Your task to perform on an android device: choose inbox layout in the gmail app Image 0: 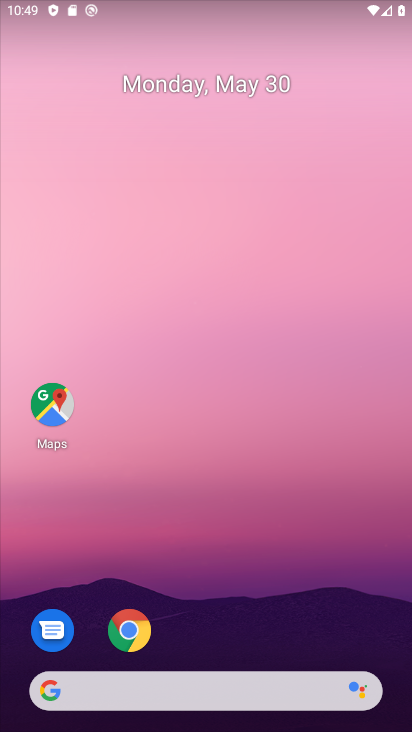
Step 0: drag from (174, 529) to (390, 308)
Your task to perform on an android device: choose inbox layout in the gmail app Image 1: 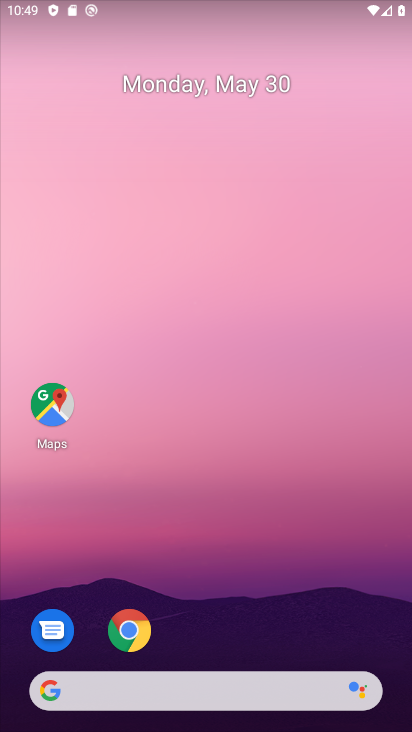
Step 1: drag from (188, 631) to (235, 222)
Your task to perform on an android device: choose inbox layout in the gmail app Image 2: 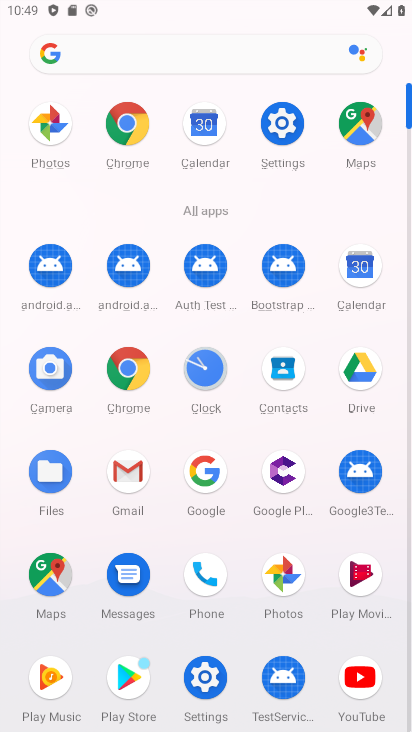
Step 2: click (122, 481)
Your task to perform on an android device: choose inbox layout in the gmail app Image 3: 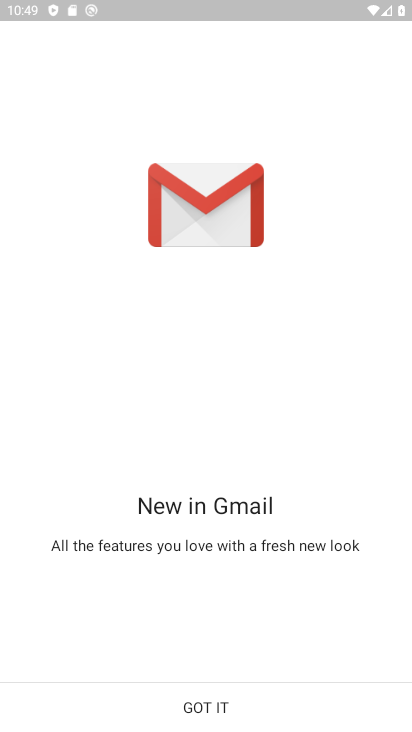
Step 3: click (215, 709)
Your task to perform on an android device: choose inbox layout in the gmail app Image 4: 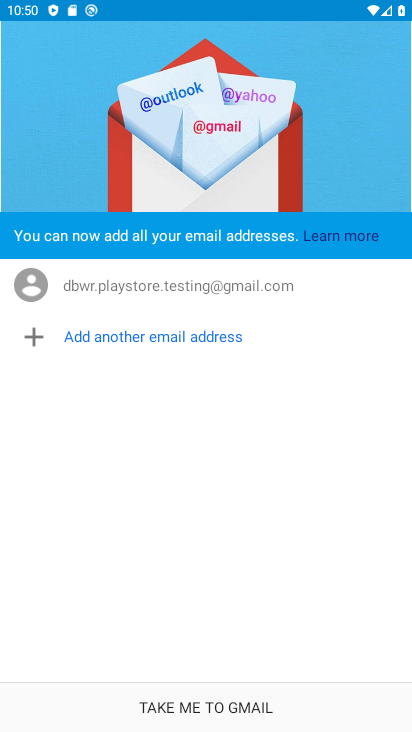
Step 4: click (181, 714)
Your task to perform on an android device: choose inbox layout in the gmail app Image 5: 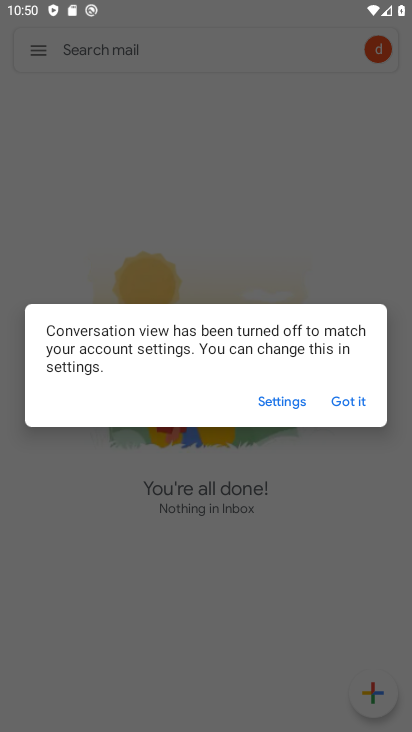
Step 5: click (357, 412)
Your task to perform on an android device: choose inbox layout in the gmail app Image 6: 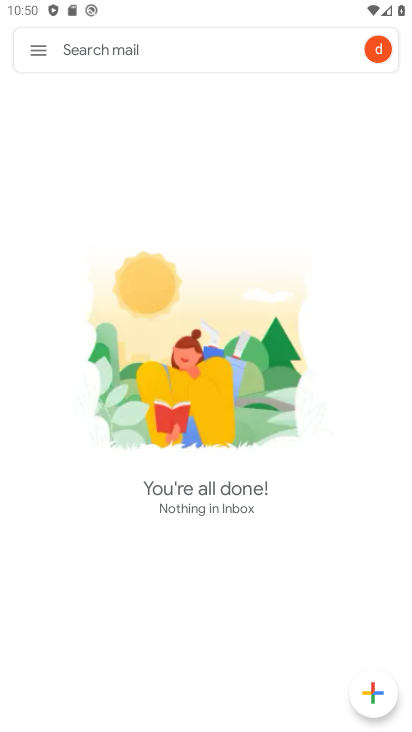
Step 6: click (36, 44)
Your task to perform on an android device: choose inbox layout in the gmail app Image 7: 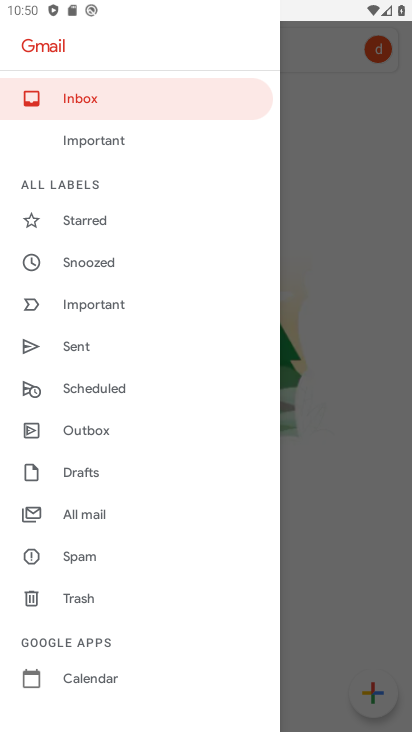
Step 7: drag from (108, 585) to (135, 294)
Your task to perform on an android device: choose inbox layout in the gmail app Image 8: 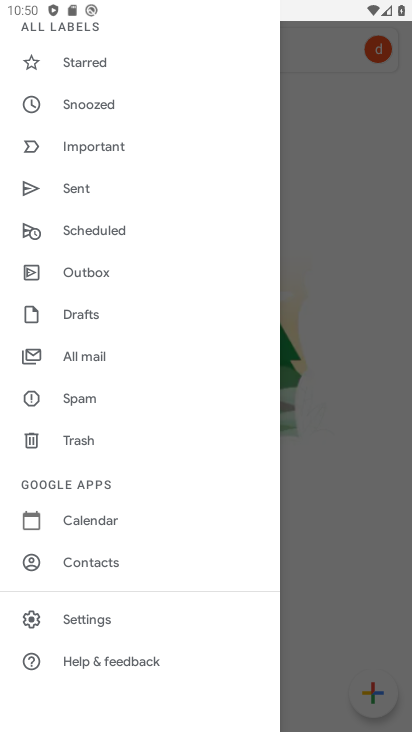
Step 8: click (74, 621)
Your task to perform on an android device: choose inbox layout in the gmail app Image 9: 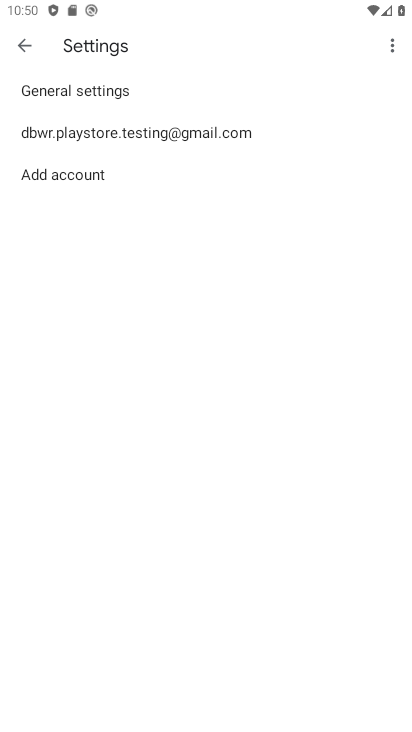
Step 9: click (185, 145)
Your task to perform on an android device: choose inbox layout in the gmail app Image 10: 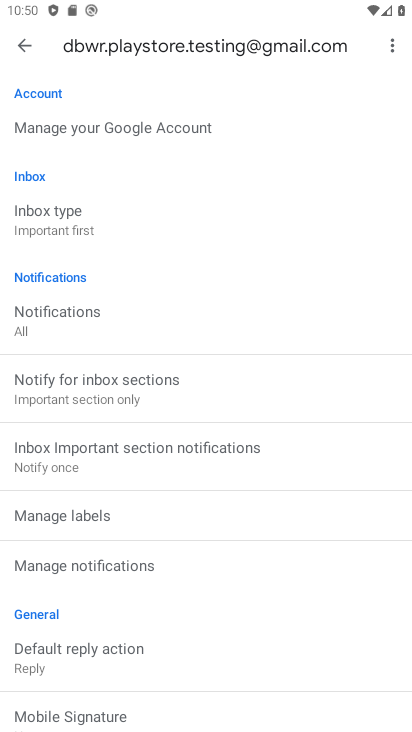
Step 10: click (68, 231)
Your task to perform on an android device: choose inbox layout in the gmail app Image 11: 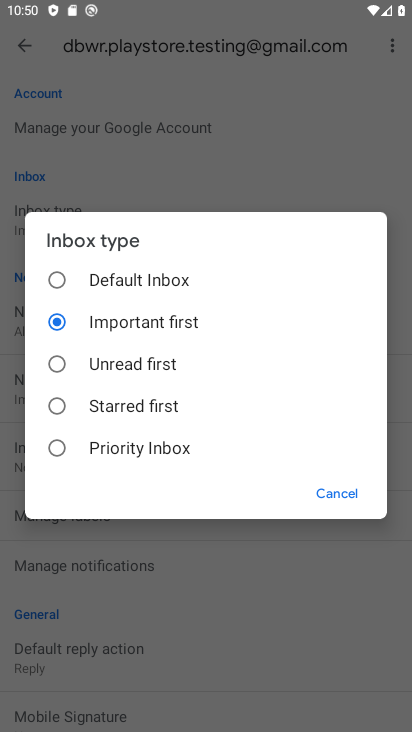
Step 11: click (121, 274)
Your task to perform on an android device: choose inbox layout in the gmail app Image 12: 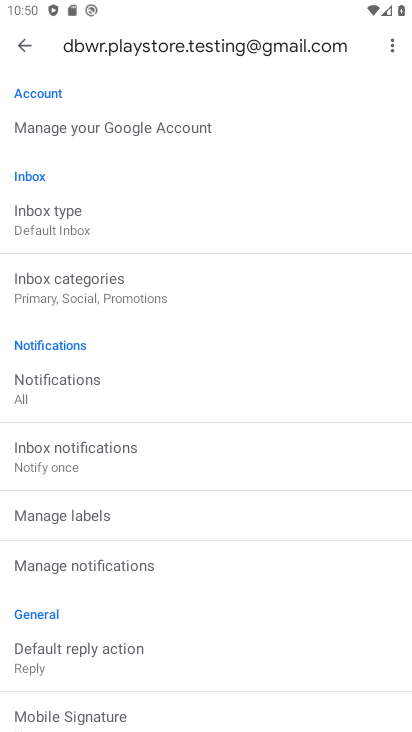
Step 12: task complete